Your task to perform on an android device: change notifications settings Image 0: 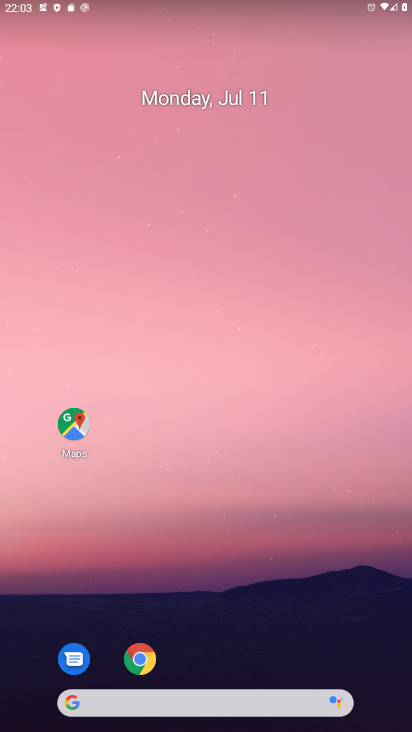
Step 0: drag from (187, 676) to (290, 10)
Your task to perform on an android device: change notifications settings Image 1: 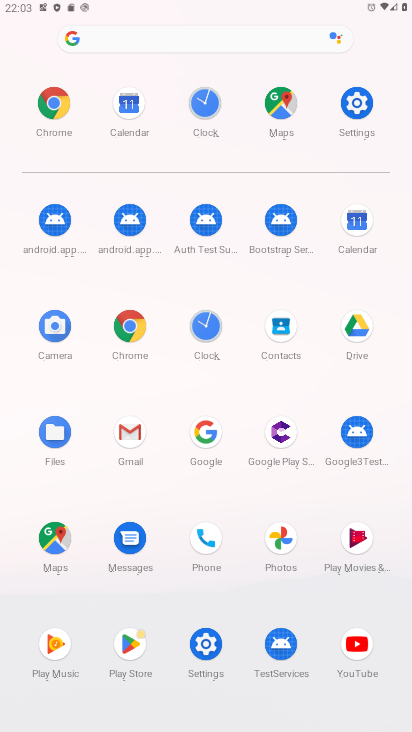
Step 1: click (346, 96)
Your task to perform on an android device: change notifications settings Image 2: 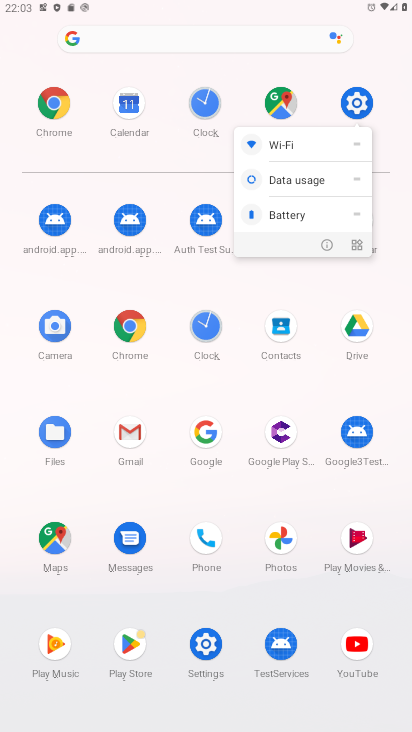
Step 2: click (331, 239)
Your task to perform on an android device: change notifications settings Image 3: 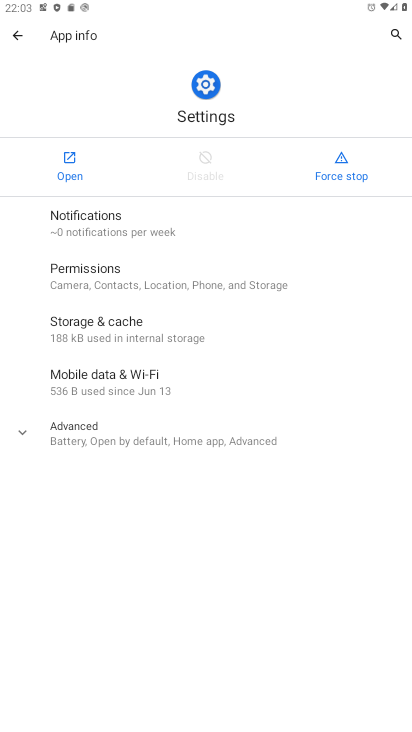
Step 3: click (68, 165)
Your task to perform on an android device: change notifications settings Image 4: 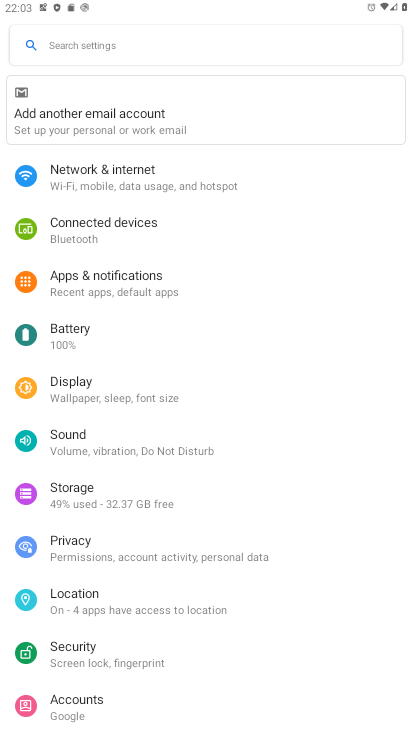
Step 4: click (110, 286)
Your task to perform on an android device: change notifications settings Image 5: 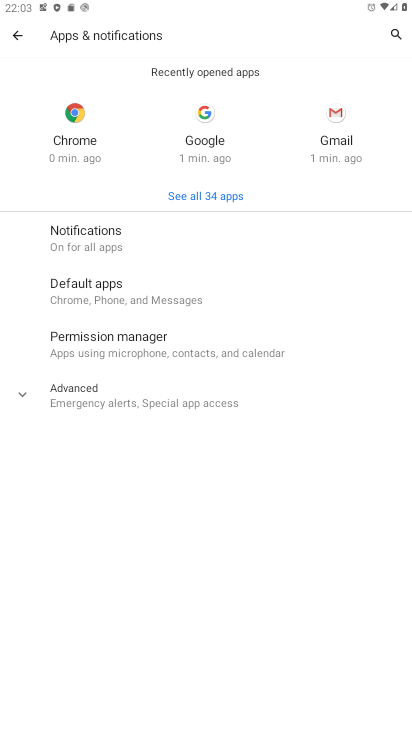
Step 5: click (135, 246)
Your task to perform on an android device: change notifications settings Image 6: 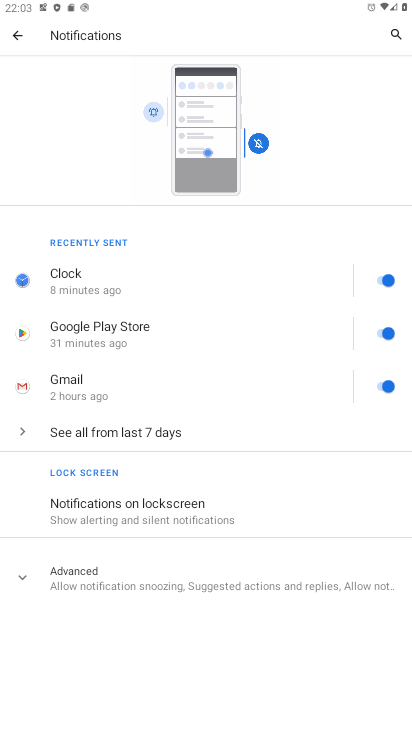
Step 6: drag from (216, 599) to (282, 210)
Your task to perform on an android device: change notifications settings Image 7: 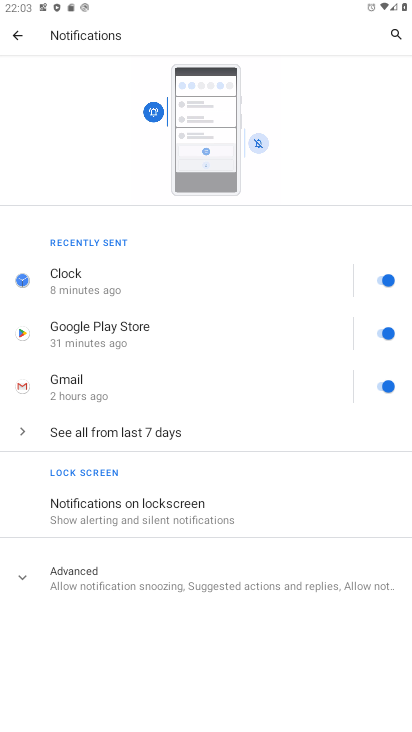
Step 7: click (141, 564)
Your task to perform on an android device: change notifications settings Image 8: 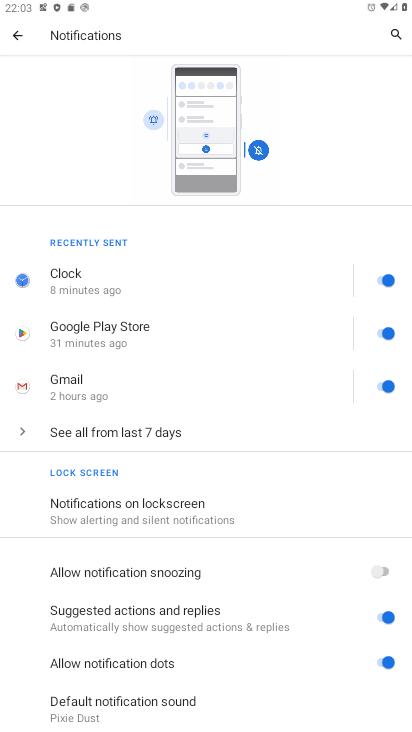
Step 8: drag from (219, 654) to (237, 350)
Your task to perform on an android device: change notifications settings Image 9: 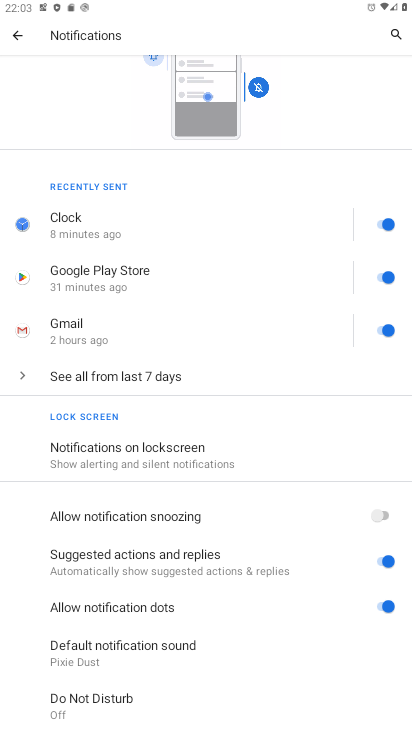
Step 9: drag from (239, 658) to (290, 343)
Your task to perform on an android device: change notifications settings Image 10: 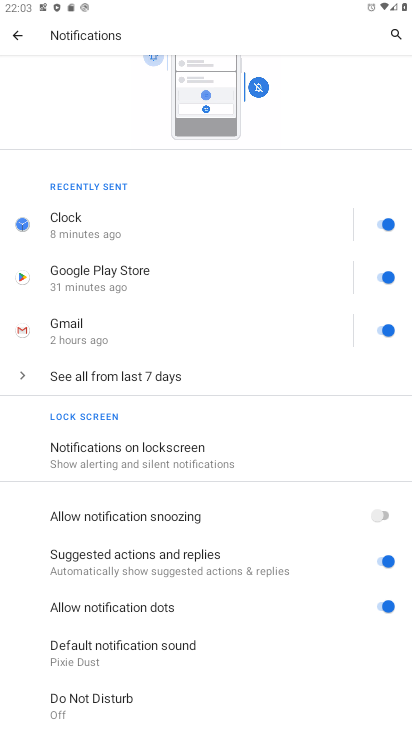
Step 10: drag from (242, 357) to (278, 640)
Your task to perform on an android device: change notifications settings Image 11: 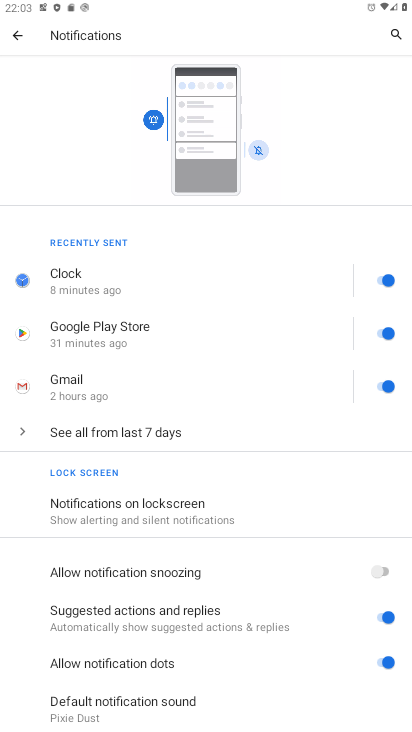
Step 11: drag from (247, 468) to (324, 76)
Your task to perform on an android device: change notifications settings Image 12: 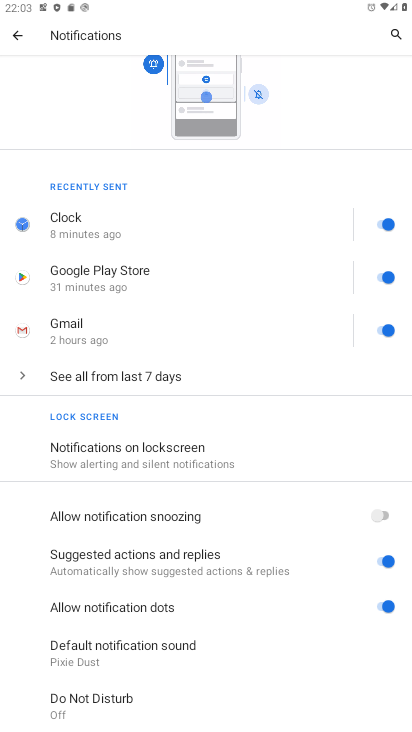
Step 12: drag from (167, 657) to (234, 348)
Your task to perform on an android device: change notifications settings Image 13: 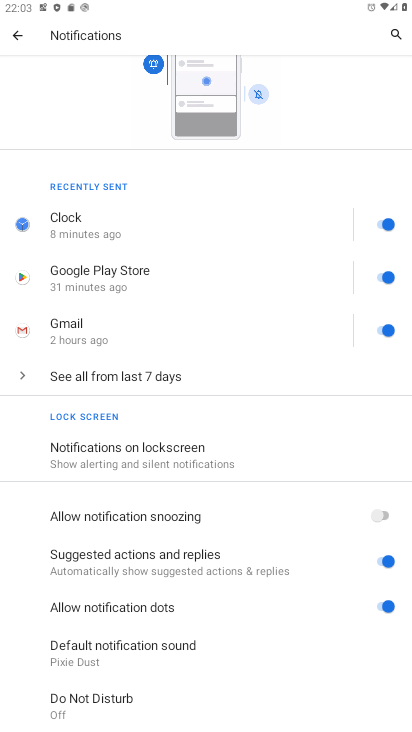
Step 13: click (35, 382)
Your task to perform on an android device: change notifications settings Image 14: 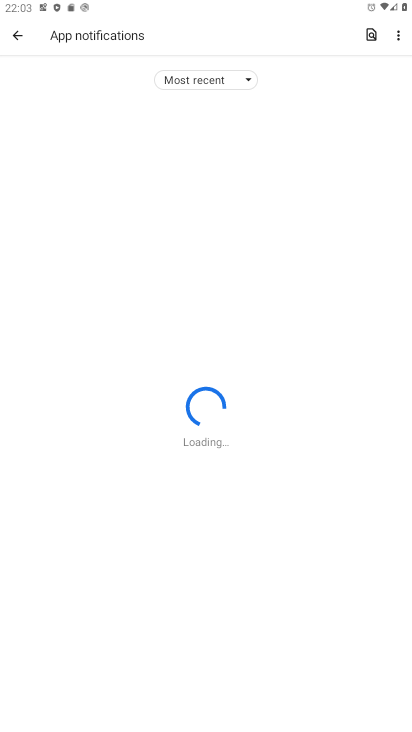
Step 14: drag from (272, 515) to (362, 157)
Your task to perform on an android device: change notifications settings Image 15: 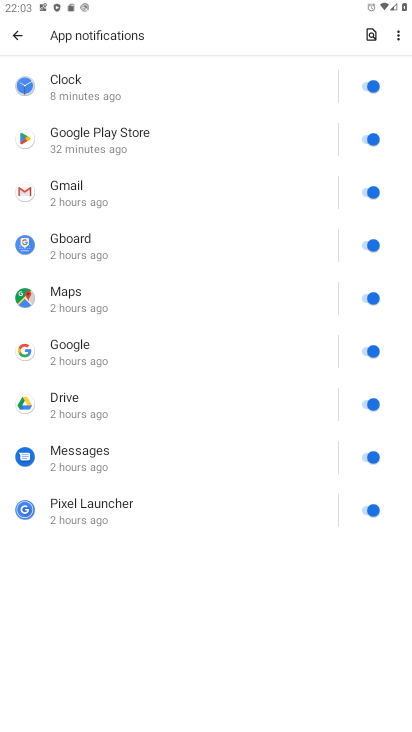
Step 15: drag from (283, 570) to (331, 112)
Your task to perform on an android device: change notifications settings Image 16: 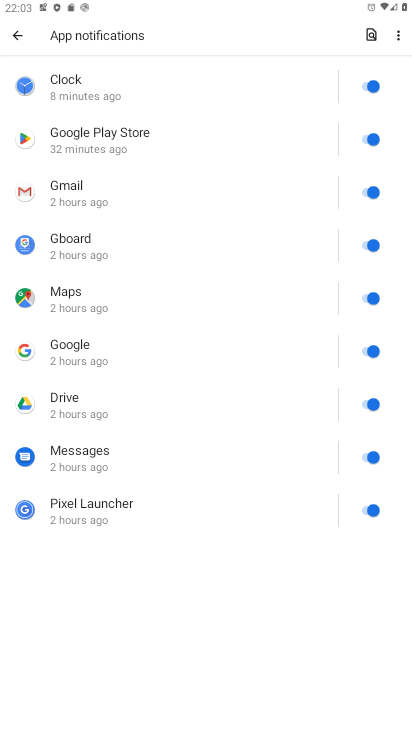
Step 16: click (370, 512)
Your task to perform on an android device: change notifications settings Image 17: 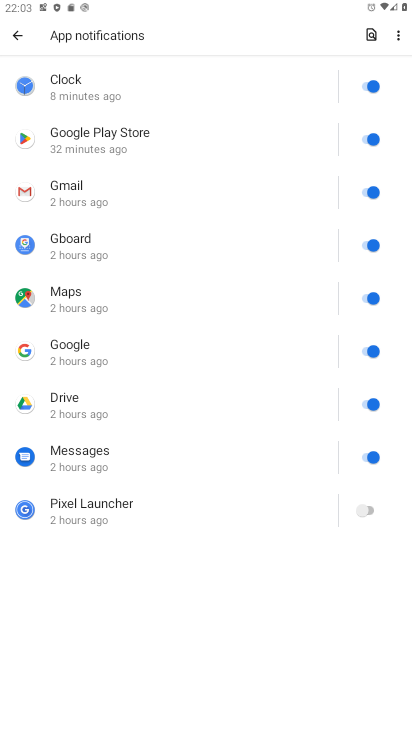
Step 17: task complete